Your task to perform on an android device: change the clock display to show seconds Image 0: 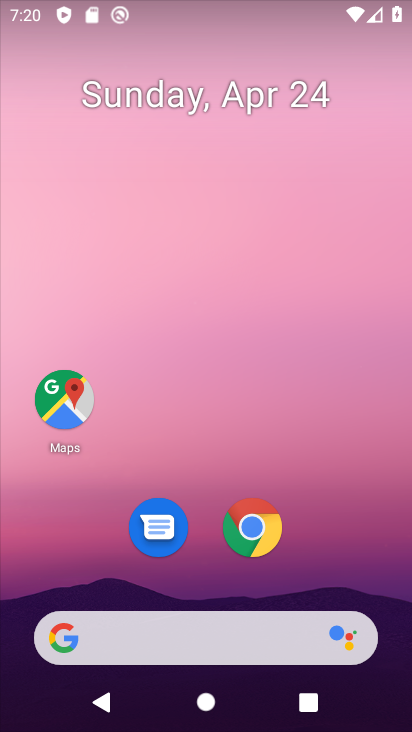
Step 0: drag from (344, 585) to (270, 125)
Your task to perform on an android device: change the clock display to show seconds Image 1: 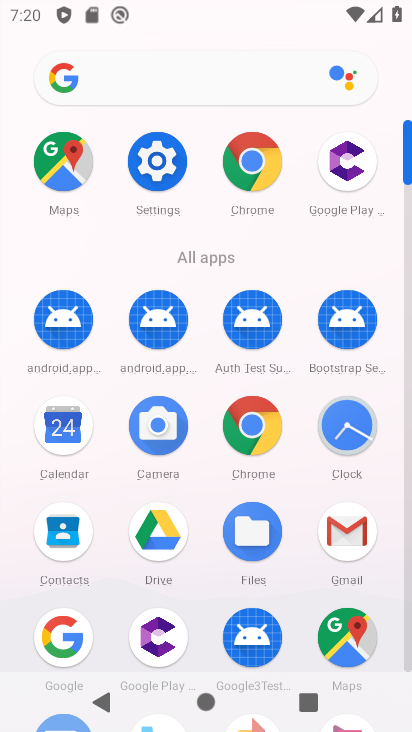
Step 1: click (364, 425)
Your task to perform on an android device: change the clock display to show seconds Image 2: 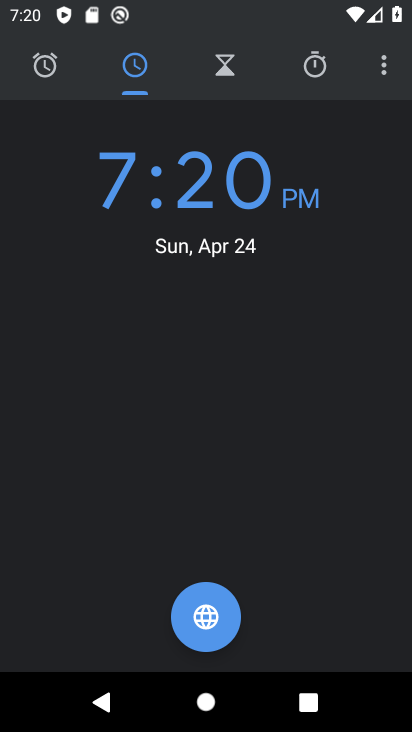
Step 2: click (378, 62)
Your task to perform on an android device: change the clock display to show seconds Image 3: 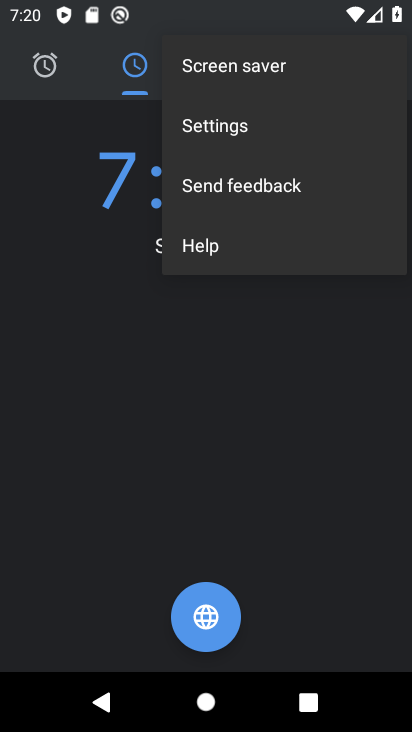
Step 3: click (287, 120)
Your task to perform on an android device: change the clock display to show seconds Image 4: 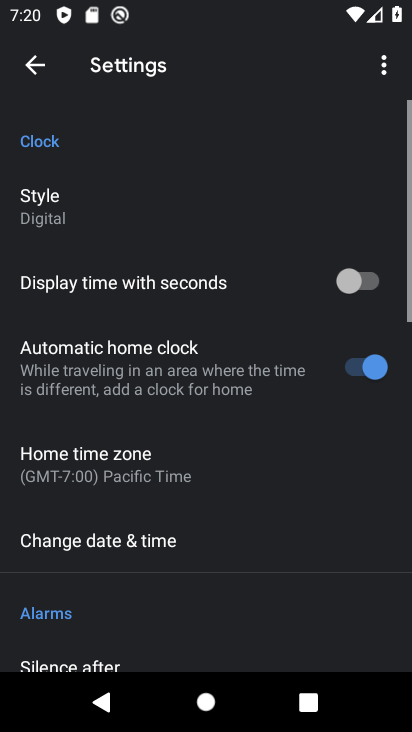
Step 4: click (330, 266)
Your task to perform on an android device: change the clock display to show seconds Image 5: 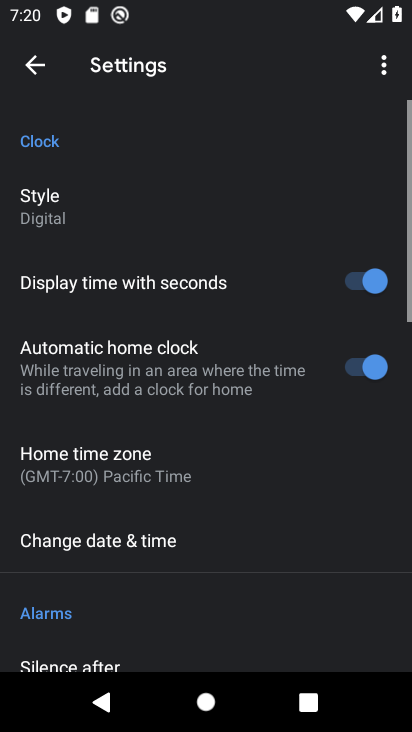
Step 5: task complete